Your task to perform on an android device: Go to Android settings Image 0: 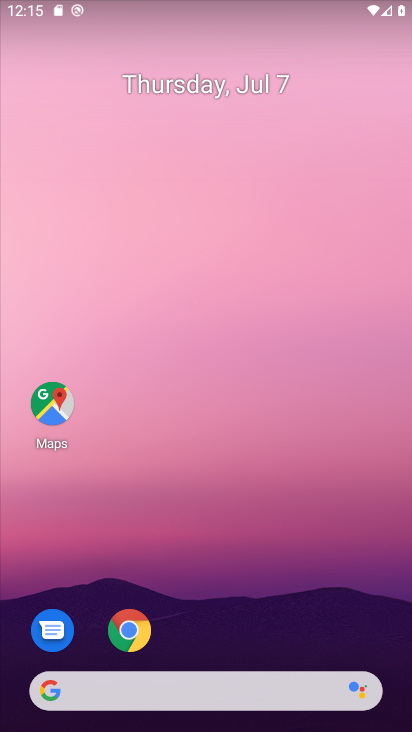
Step 0: drag from (298, 614) to (305, 243)
Your task to perform on an android device: Go to Android settings Image 1: 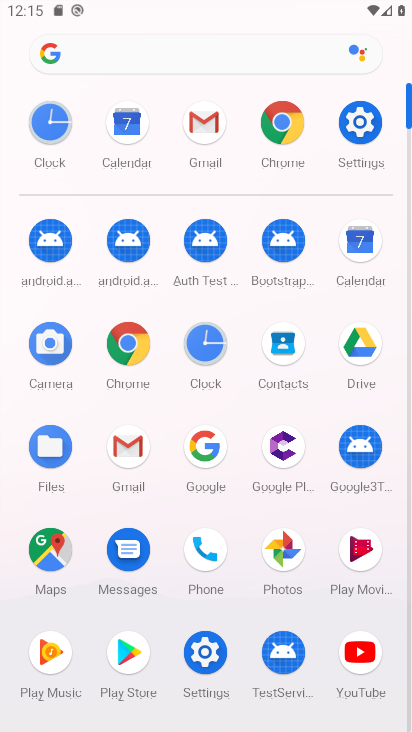
Step 1: click (368, 113)
Your task to perform on an android device: Go to Android settings Image 2: 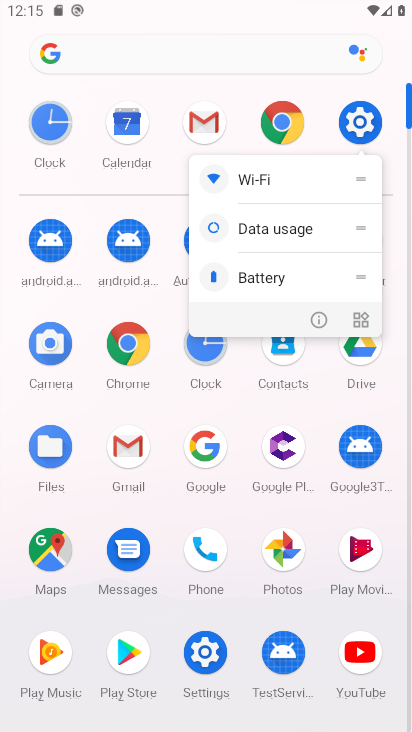
Step 2: click (368, 113)
Your task to perform on an android device: Go to Android settings Image 3: 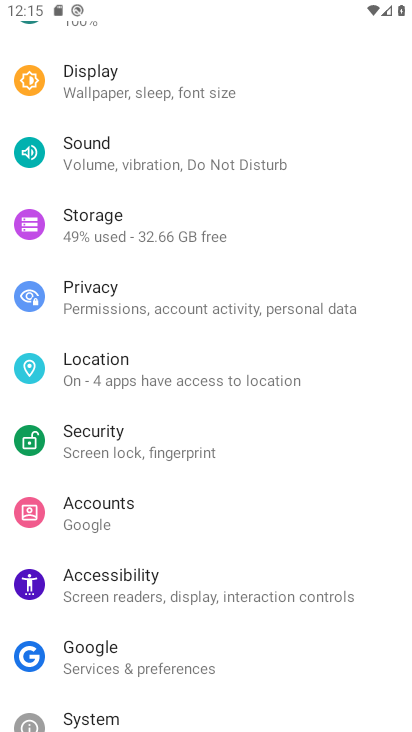
Step 3: task complete